Your task to perform on an android device: open app "DoorDash - Dasher" Image 0: 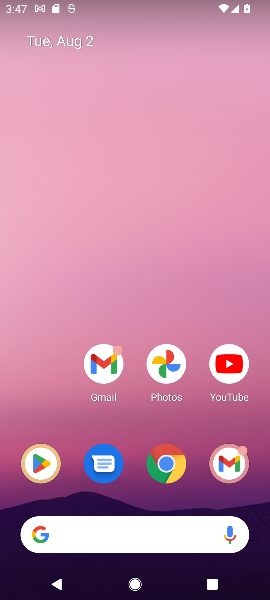
Step 0: click (31, 457)
Your task to perform on an android device: open app "DoorDash - Dasher" Image 1: 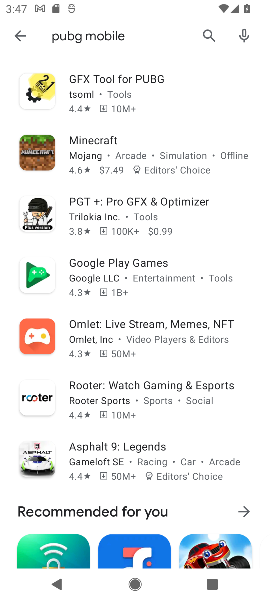
Step 1: click (202, 34)
Your task to perform on an android device: open app "DoorDash - Dasher" Image 2: 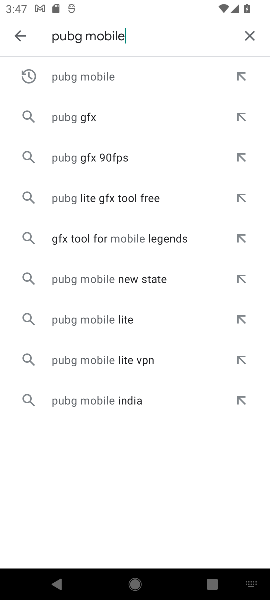
Step 2: click (247, 33)
Your task to perform on an android device: open app "DoorDash - Dasher" Image 3: 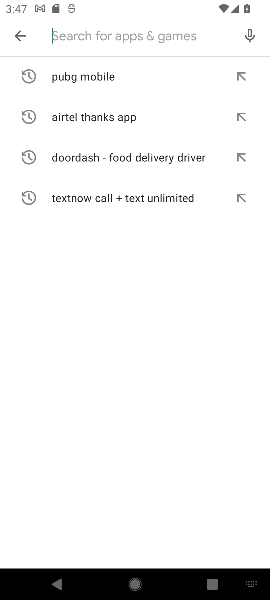
Step 3: type "PUBG MOBILE"
Your task to perform on an android device: open app "DoorDash - Dasher" Image 4: 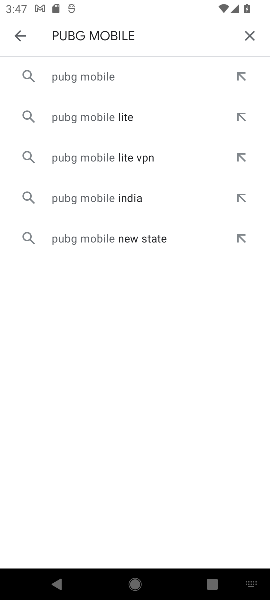
Step 4: click (247, 34)
Your task to perform on an android device: open app "DoorDash - Dasher" Image 5: 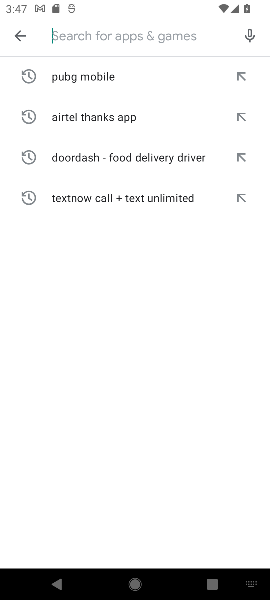
Step 5: type "DoorDash - Dasher"
Your task to perform on an android device: open app "DoorDash - Dasher" Image 6: 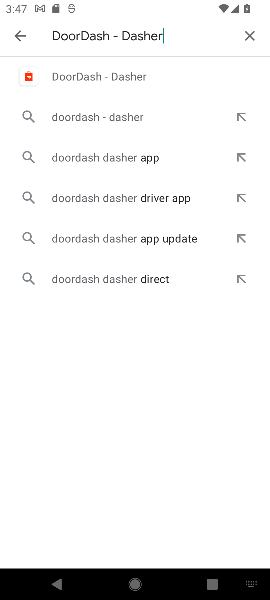
Step 6: click (102, 77)
Your task to perform on an android device: open app "DoorDash - Dasher" Image 7: 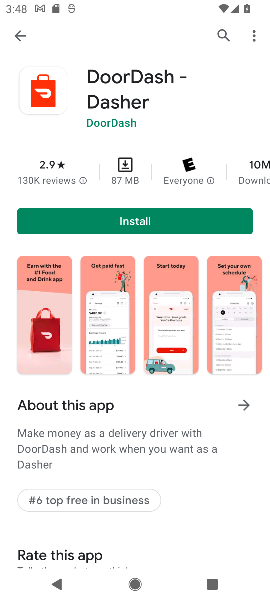
Step 7: task complete